Your task to perform on an android device: change timer sound Image 0: 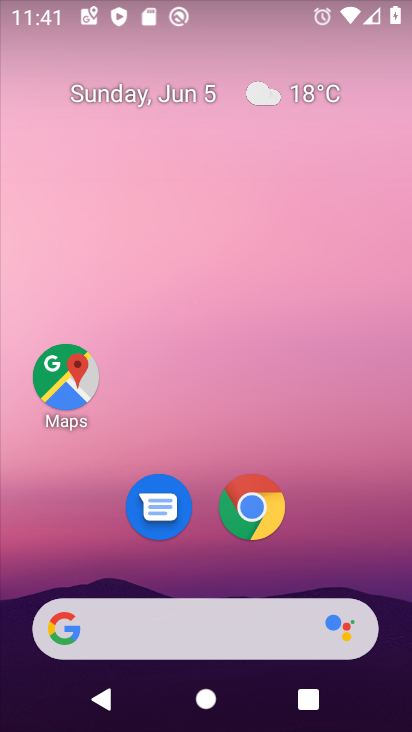
Step 0: drag from (236, 717) to (168, 120)
Your task to perform on an android device: change timer sound Image 1: 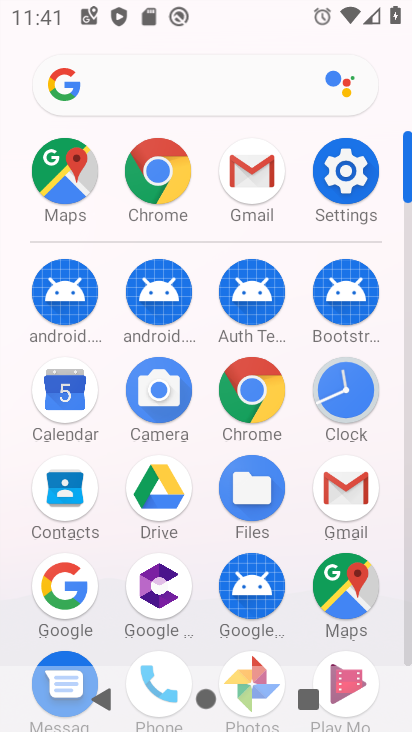
Step 1: click (341, 382)
Your task to perform on an android device: change timer sound Image 2: 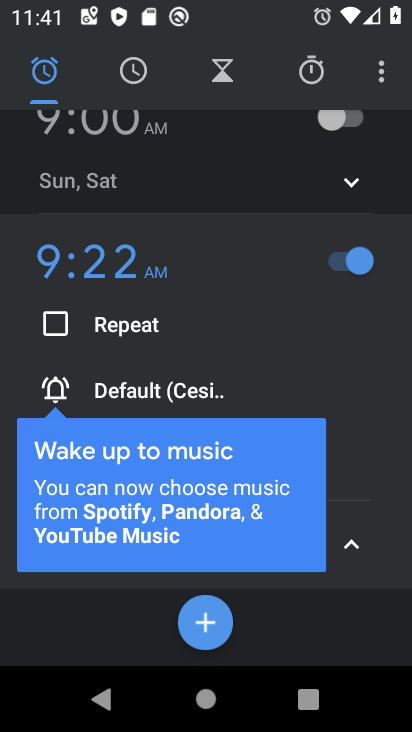
Step 2: click (384, 81)
Your task to perform on an android device: change timer sound Image 3: 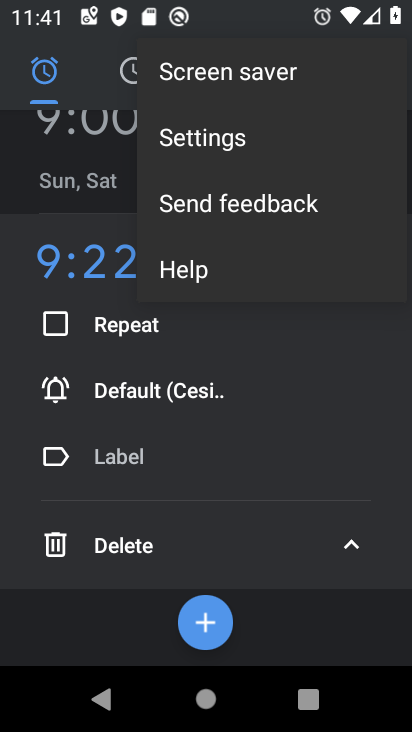
Step 3: click (205, 141)
Your task to perform on an android device: change timer sound Image 4: 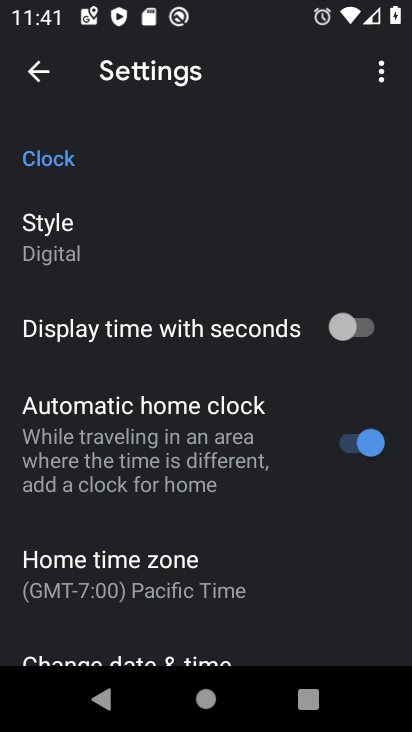
Step 4: drag from (138, 633) to (138, 246)
Your task to perform on an android device: change timer sound Image 5: 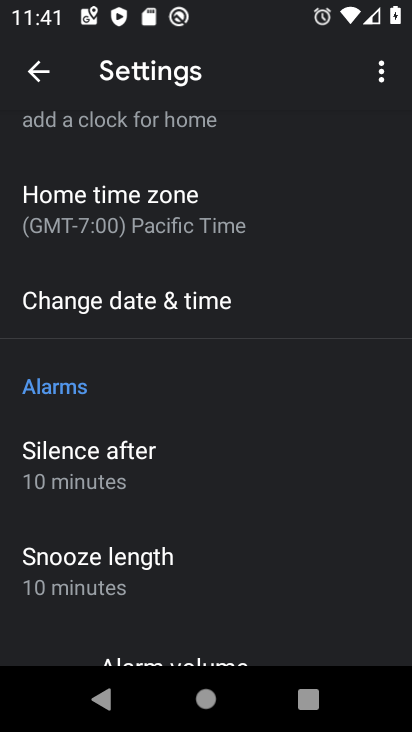
Step 5: drag from (161, 634) to (161, 277)
Your task to perform on an android device: change timer sound Image 6: 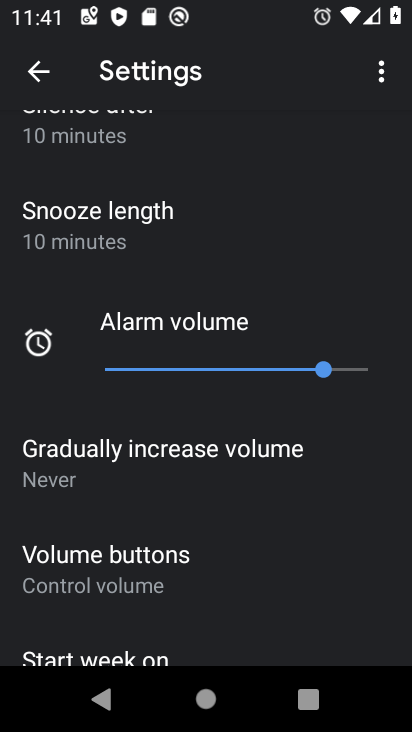
Step 6: drag from (160, 632) to (161, 291)
Your task to perform on an android device: change timer sound Image 7: 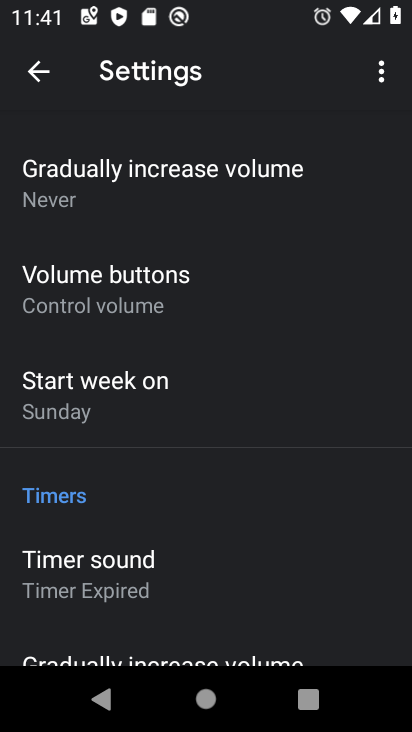
Step 7: click (126, 571)
Your task to perform on an android device: change timer sound Image 8: 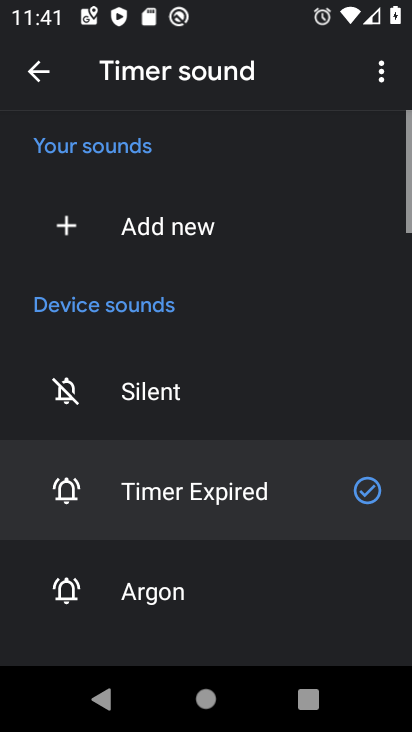
Step 8: drag from (242, 634) to (202, 291)
Your task to perform on an android device: change timer sound Image 9: 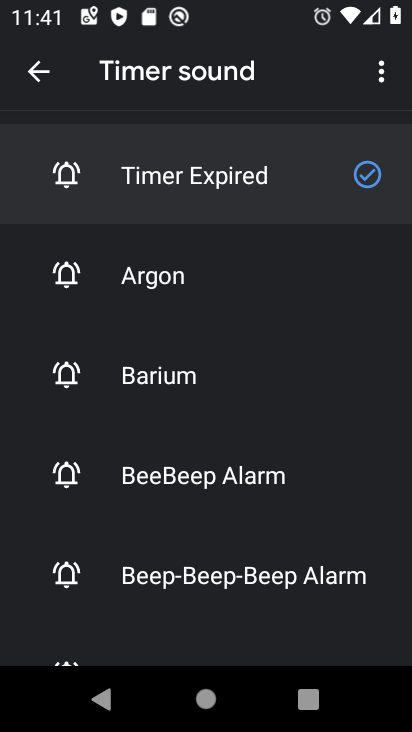
Step 9: click (156, 482)
Your task to perform on an android device: change timer sound Image 10: 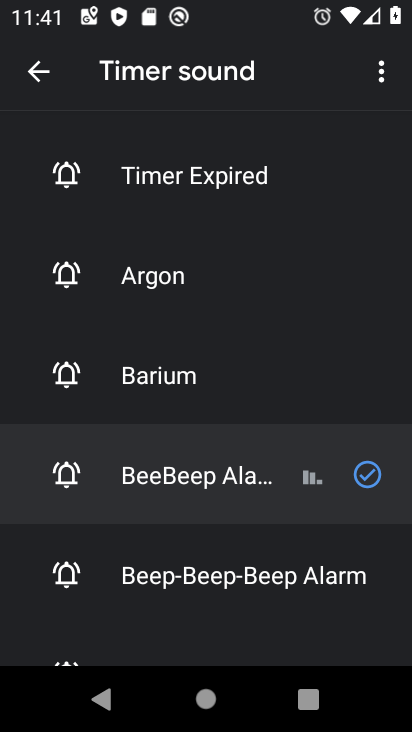
Step 10: task complete